Your task to perform on an android device: Show me productivity apps on the Play Store Image 0: 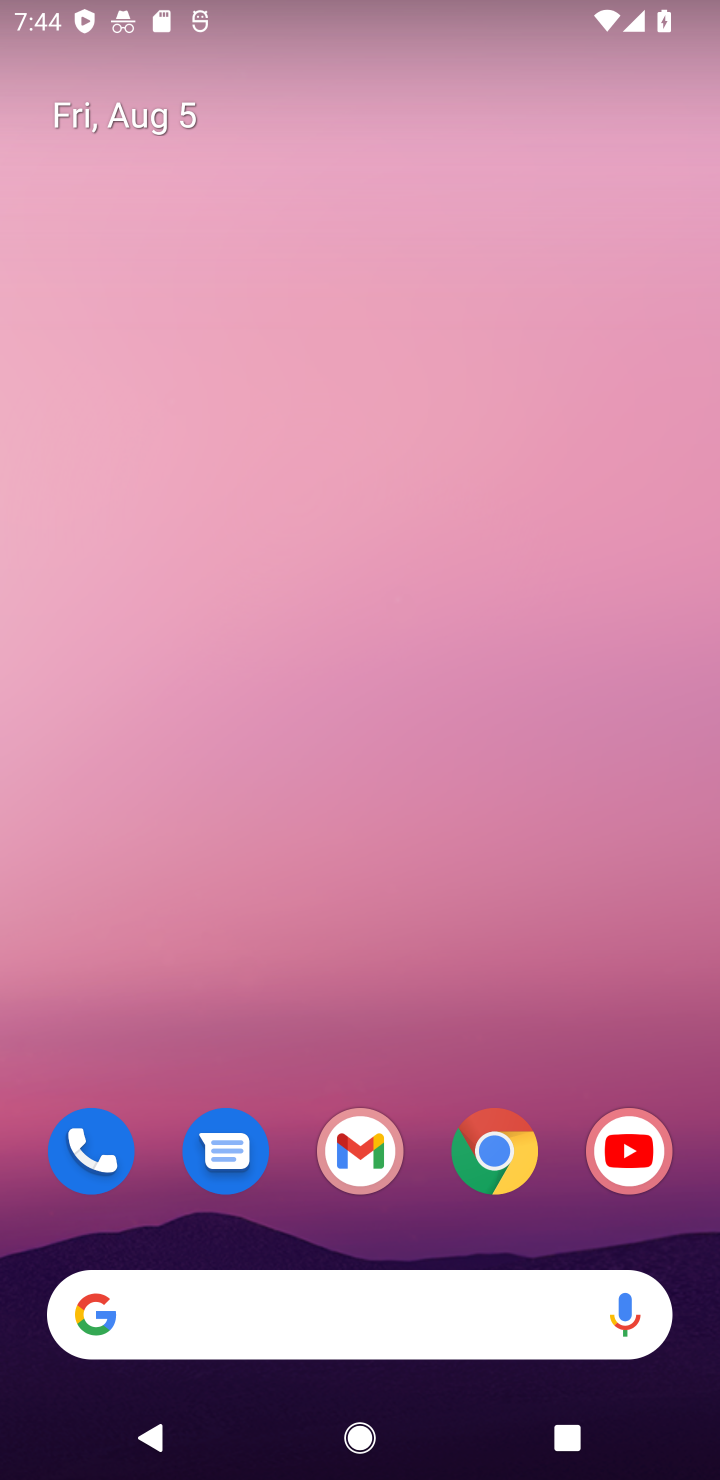
Step 0: drag from (355, 1255) to (251, 80)
Your task to perform on an android device: Show me productivity apps on the Play Store Image 1: 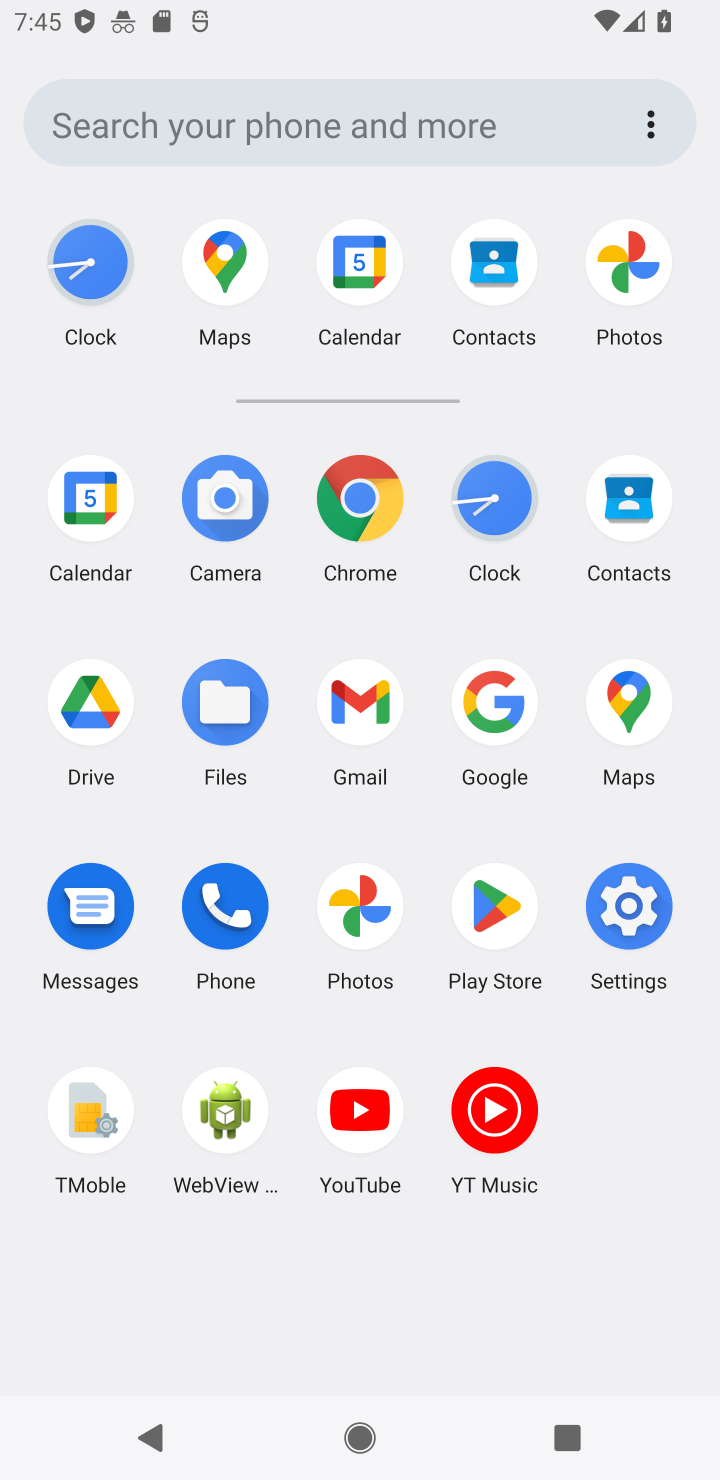
Step 1: click (497, 916)
Your task to perform on an android device: Show me productivity apps on the Play Store Image 2: 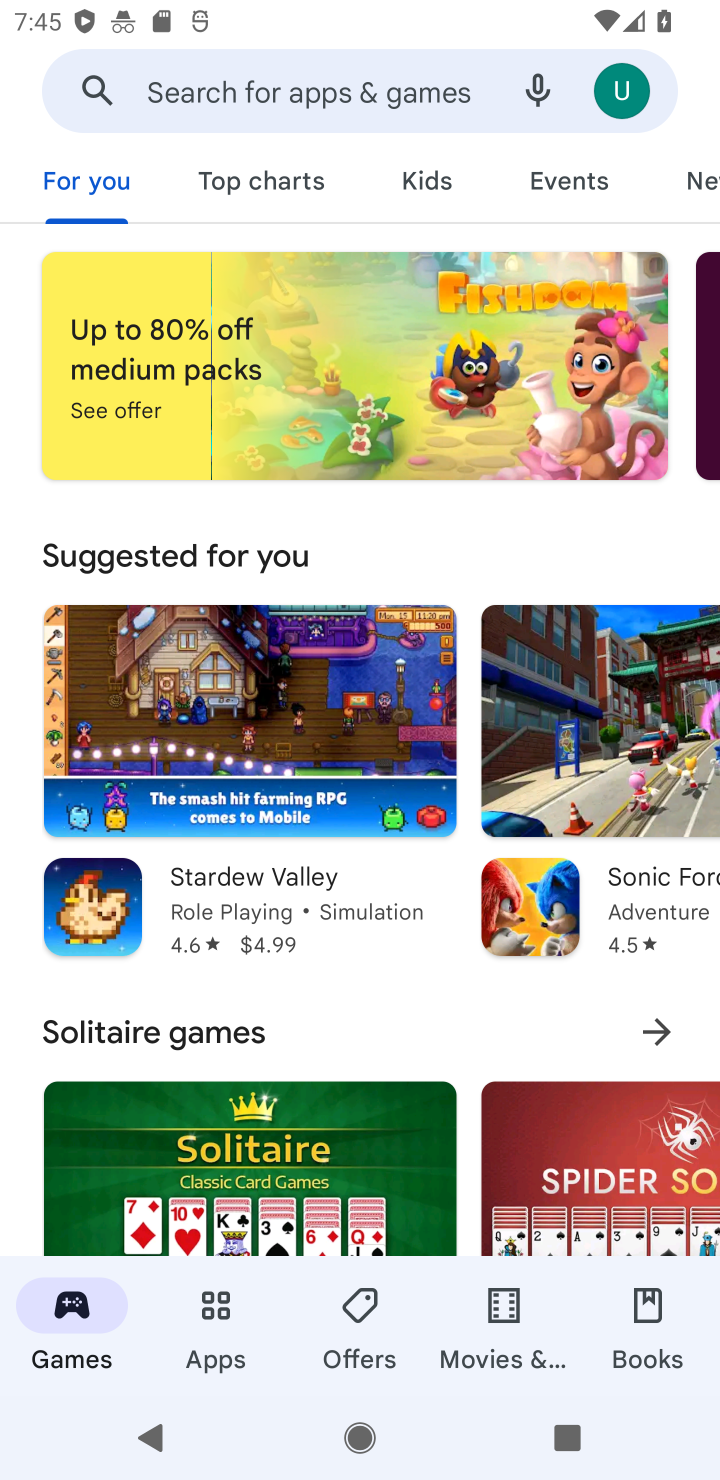
Step 2: click (169, 1307)
Your task to perform on an android device: Show me productivity apps on the Play Store Image 3: 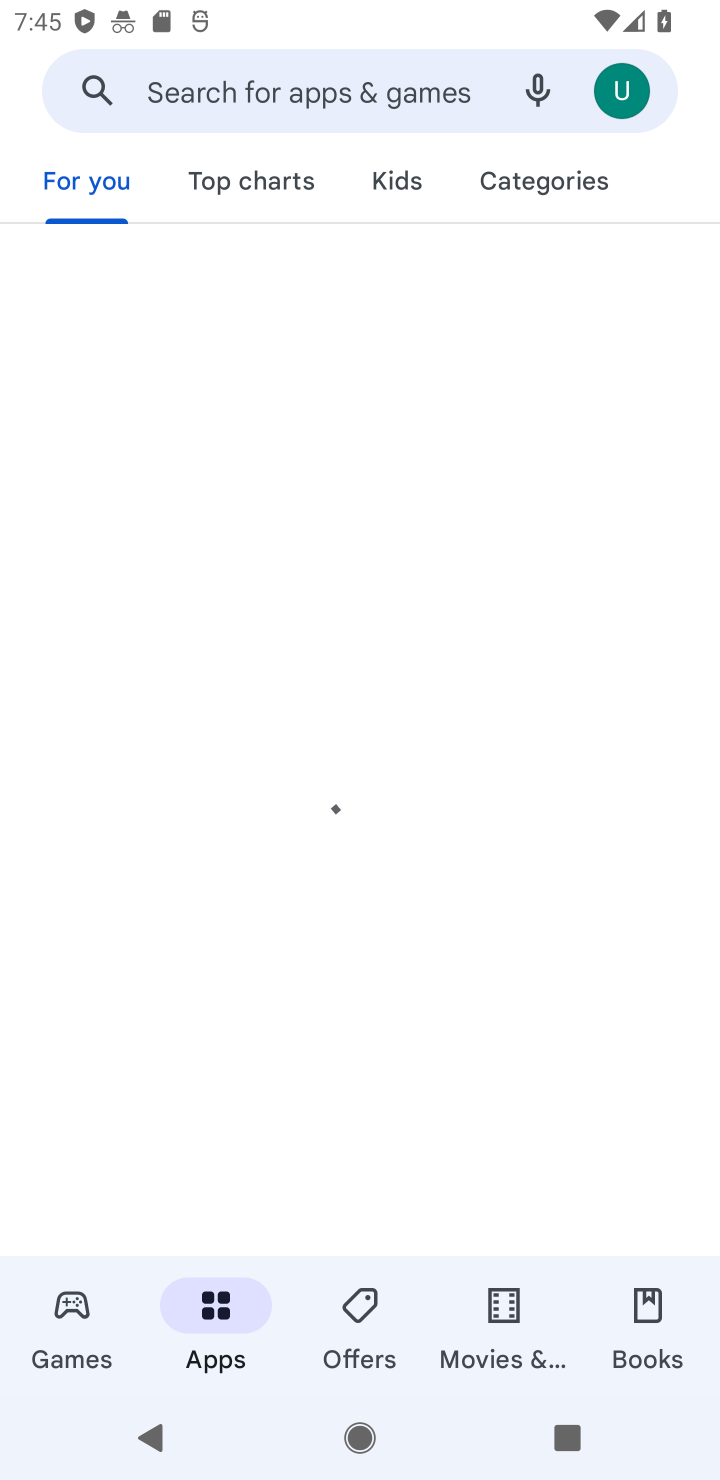
Step 3: click (536, 184)
Your task to perform on an android device: Show me productivity apps on the Play Store Image 4: 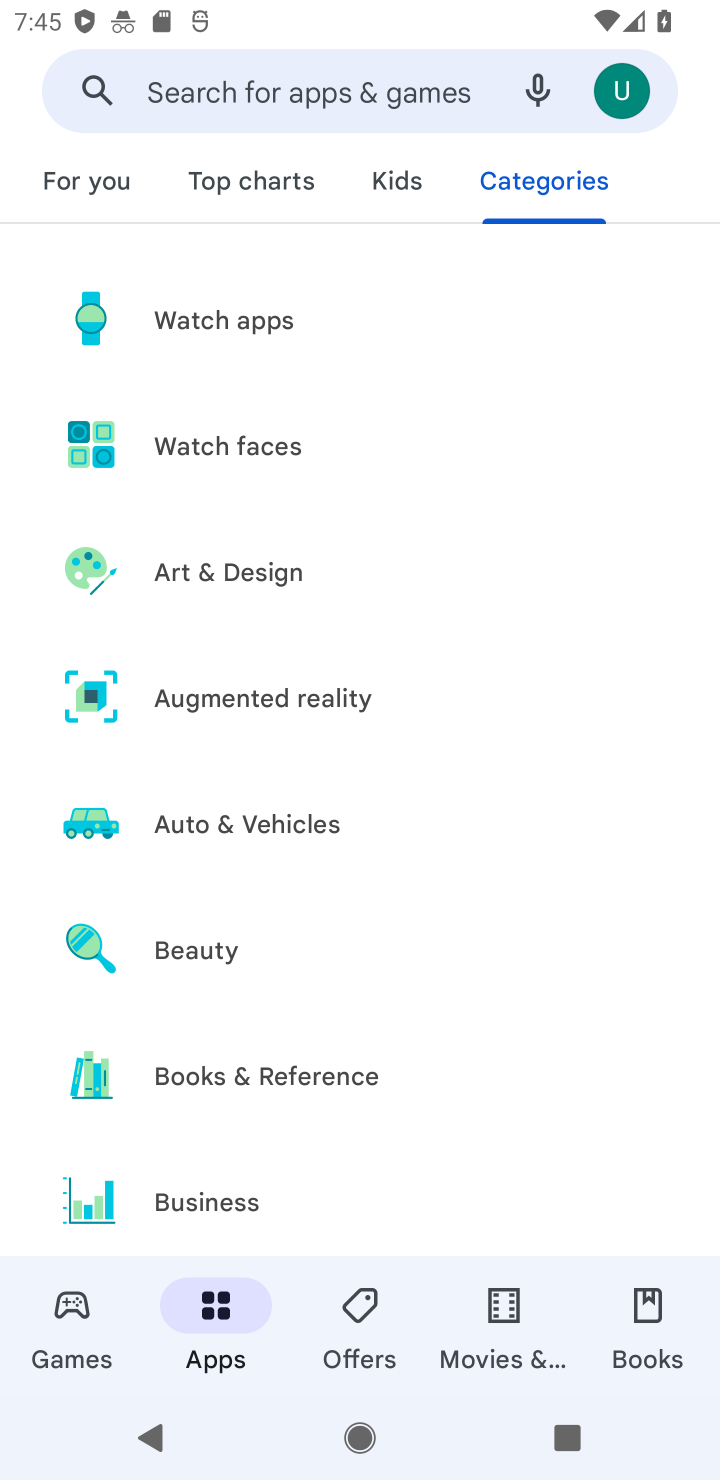
Step 4: drag from (443, 973) to (421, 77)
Your task to perform on an android device: Show me productivity apps on the Play Store Image 5: 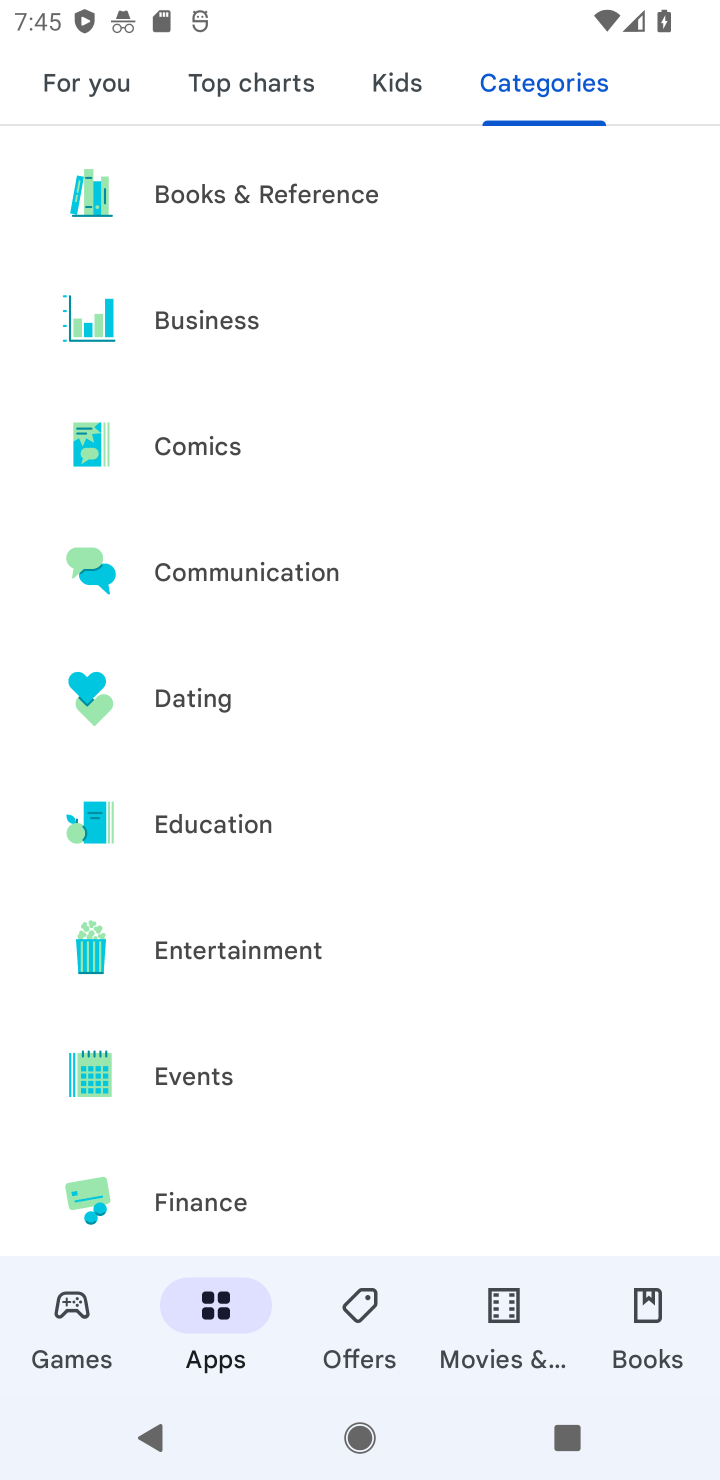
Step 5: drag from (381, 956) to (350, 34)
Your task to perform on an android device: Show me productivity apps on the Play Store Image 6: 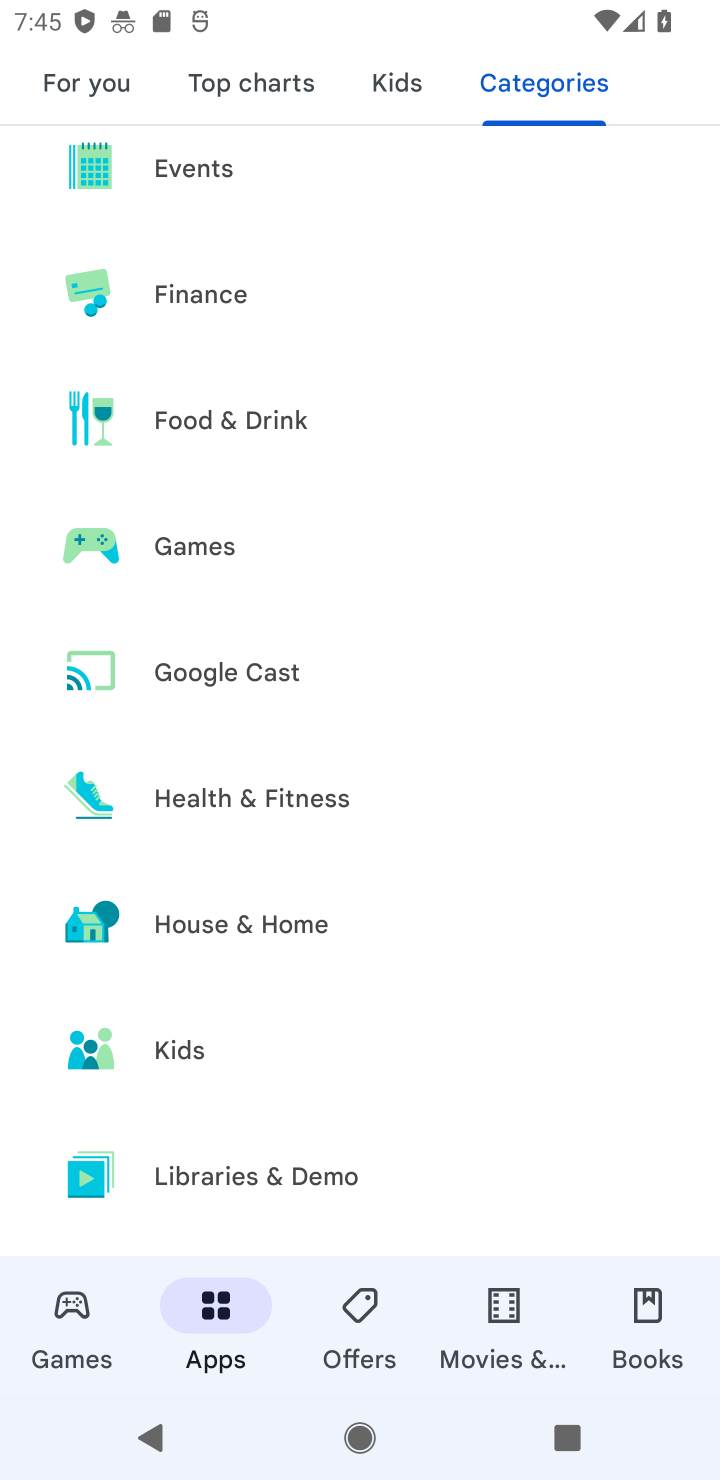
Step 6: drag from (246, 967) to (215, 39)
Your task to perform on an android device: Show me productivity apps on the Play Store Image 7: 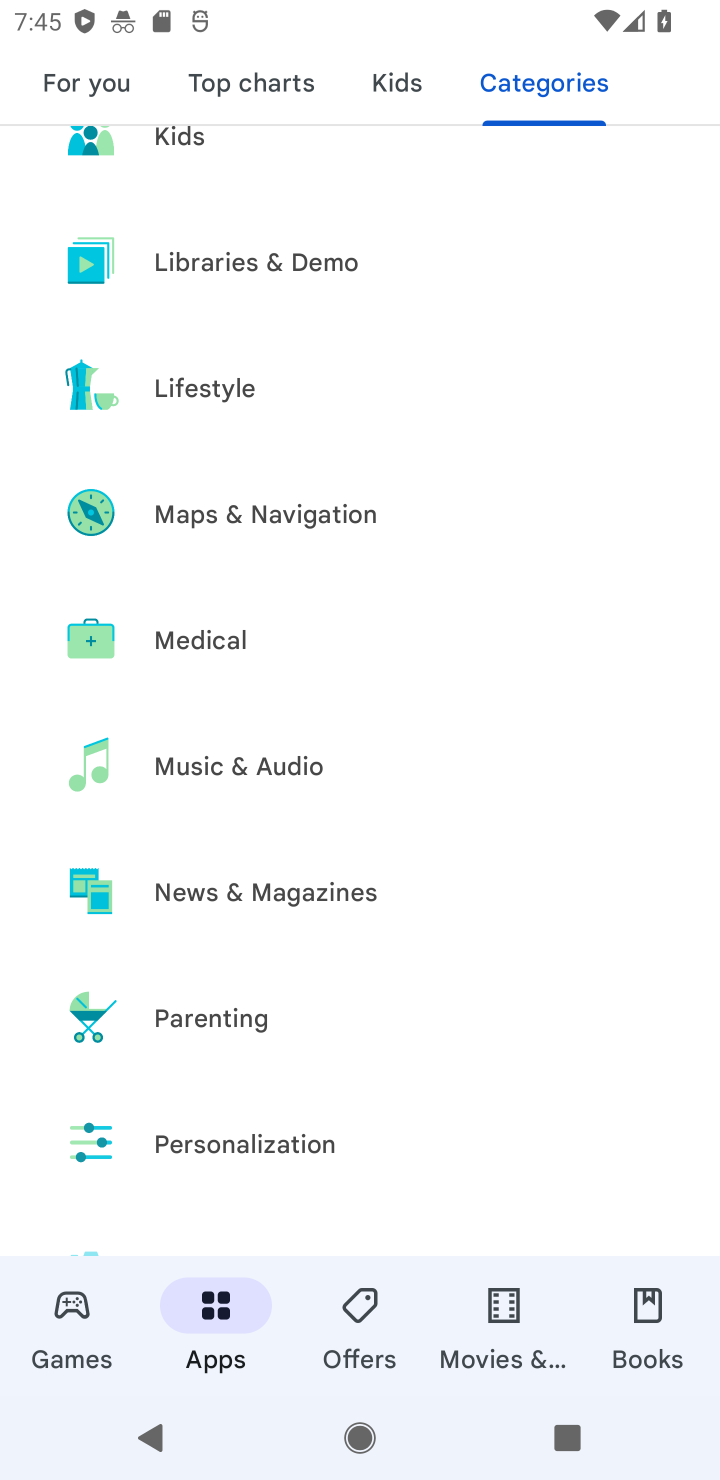
Step 7: drag from (81, 1234) to (114, 255)
Your task to perform on an android device: Show me productivity apps on the Play Store Image 8: 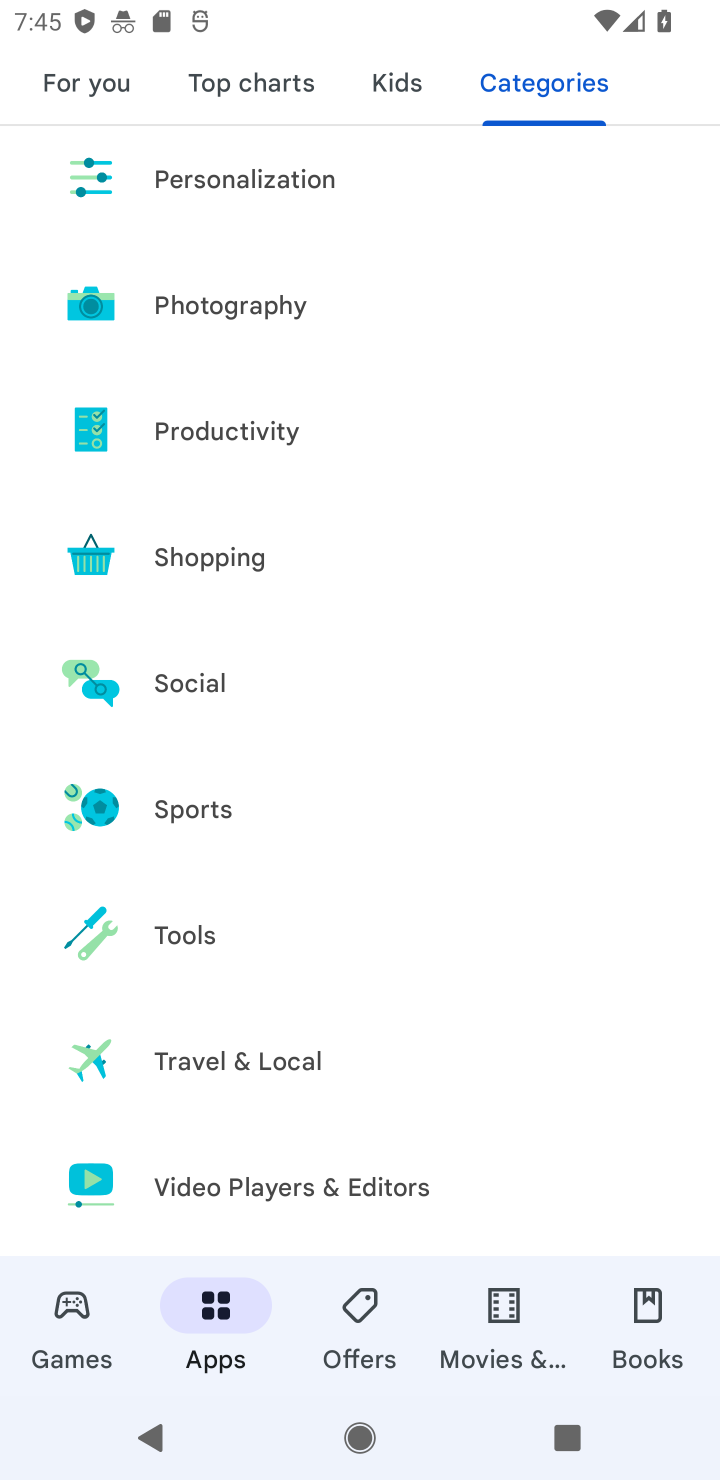
Step 8: click (244, 445)
Your task to perform on an android device: Show me productivity apps on the Play Store Image 9: 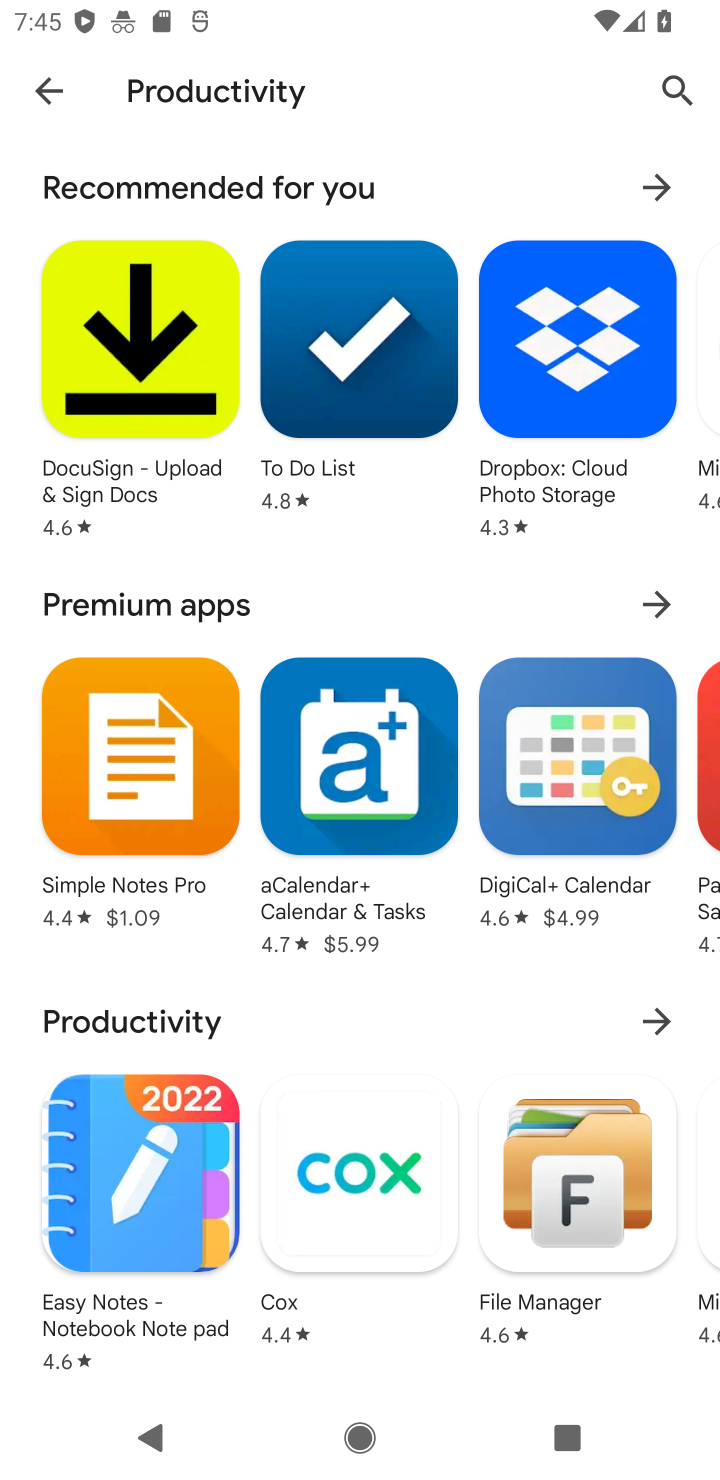
Step 9: task complete